Your task to perform on an android device: Add "usb-c to usb-a" to the cart on costco, then select checkout. Image 0: 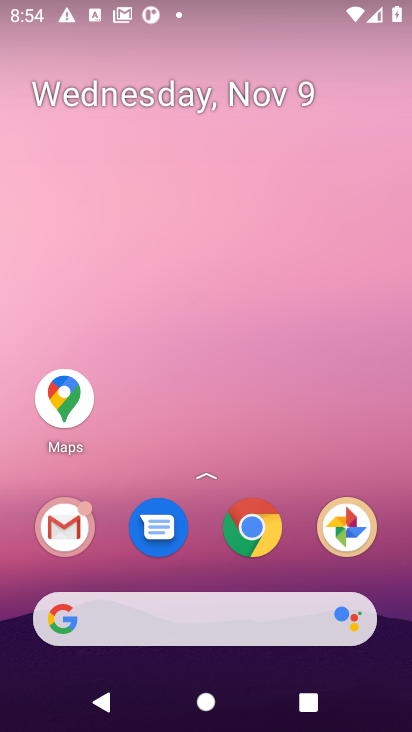
Step 0: click (264, 533)
Your task to perform on an android device: Add "usb-c to usb-a" to the cart on costco, then select checkout. Image 1: 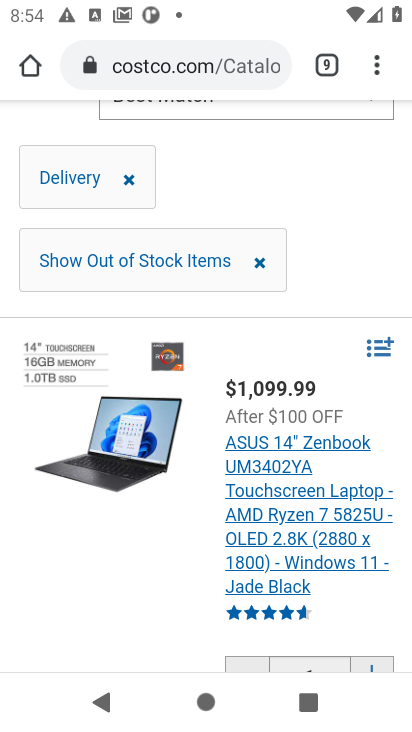
Step 1: drag from (325, 271) to (335, 642)
Your task to perform on an android device: Add "usb-c to usb-a" to the cart on costco, then select checkout. Image 2: 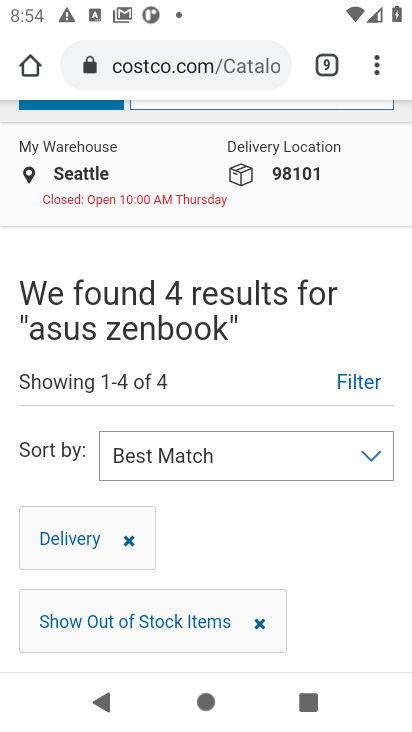
Step 2: drag from (256, 241) to (275, 548)
Your task to perform on an android device: Add "usb-c to usb-a" to the cart on costco, then select checkout. Image 3: 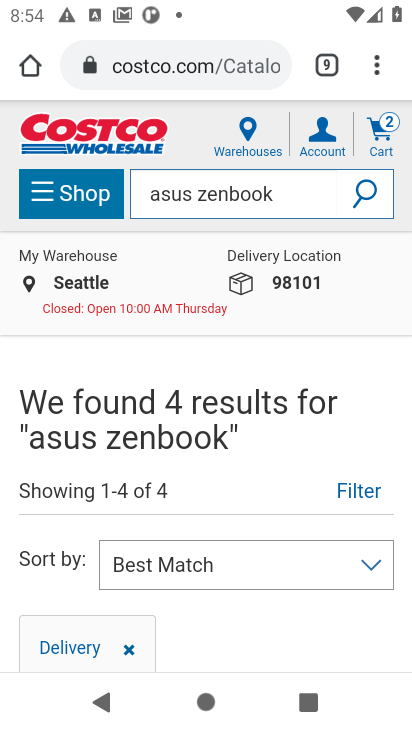
Step 3: click (286, 199)
Your task to perform on an android device: Add "usb-c to usb-a" to the cart on costco, then select checkout. Image 4: 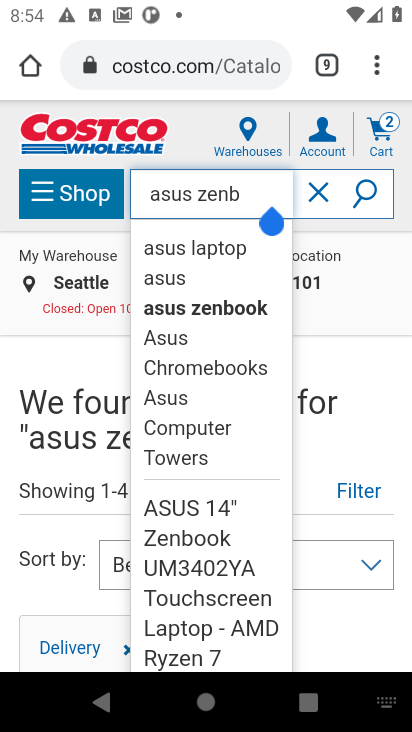
Step 4: click (324, 196)
Your task to perform on an android device: Add "usb-c to usb-a" to the cart on costco, then select checkout. Image 5: 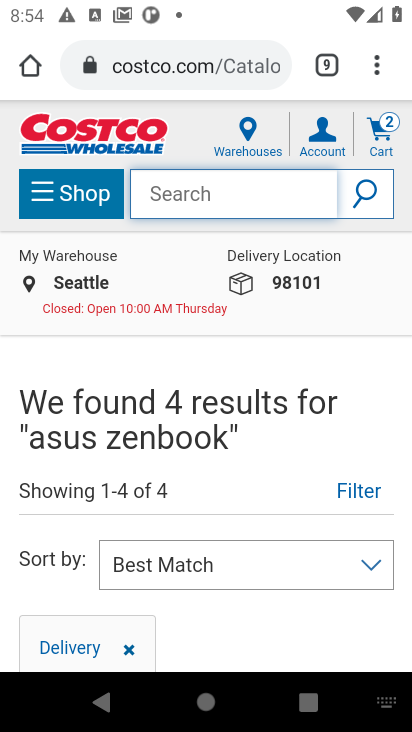
Step 5: type "usb-c to usb-a"
Your task to perform on an android device: Add "usb-c to usb-a" to the cart on costco, then select checkout. Image 6: 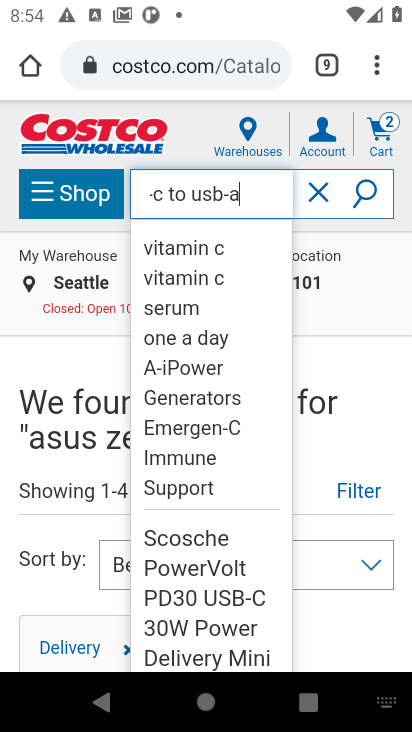
Step 6: click (364, 197)
Your task to perform on an android device: Add "usb-c to usb-a" to the cart on costco, then select checkout. Image 7: 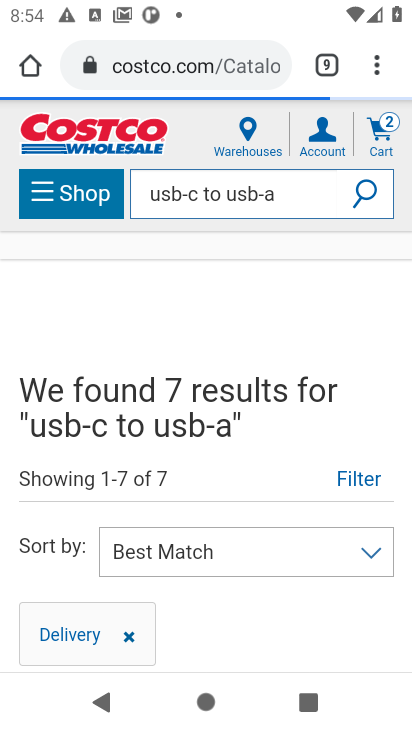
Step 7: task complete